Your task to perform on an android device: refresh tabs in the chrome app Image 0: 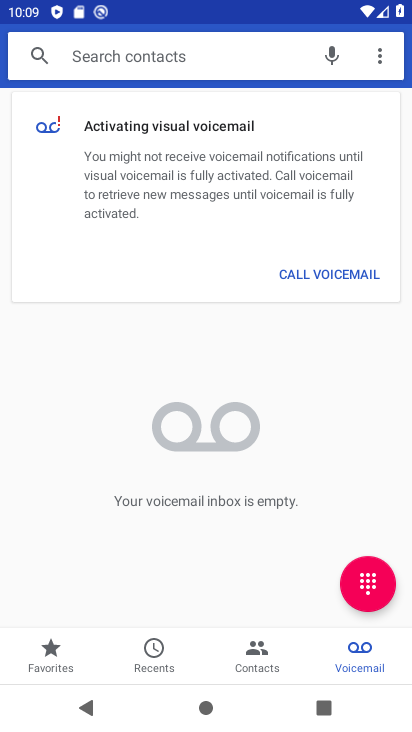
Step 0: press home button
Your task to perform on an android device: refresh tabs in the chrome app Image 1: 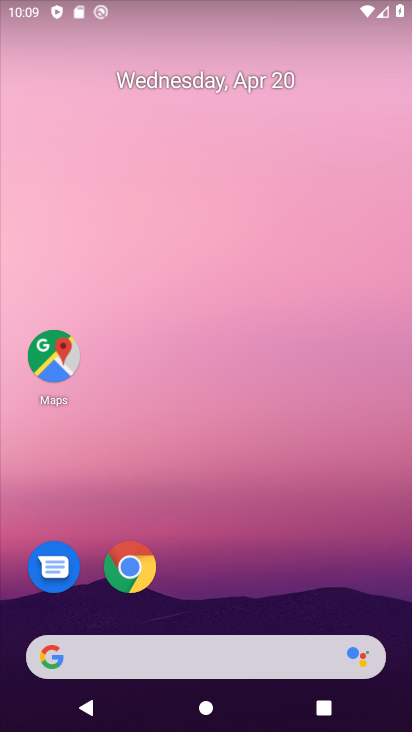
Step 1: click (130, 568)
Your task to perform on an android device: refresh tabs in the chrome app Image 2: 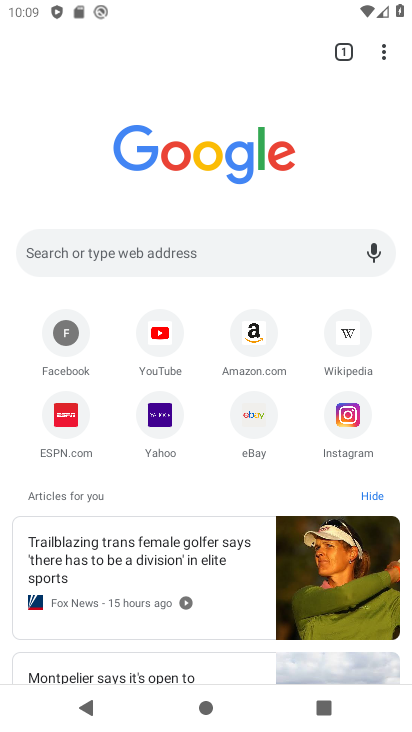
Step 2: click (387, 52)
Your task to perform on an android device: refresh tabs in the chrome app Image 3: 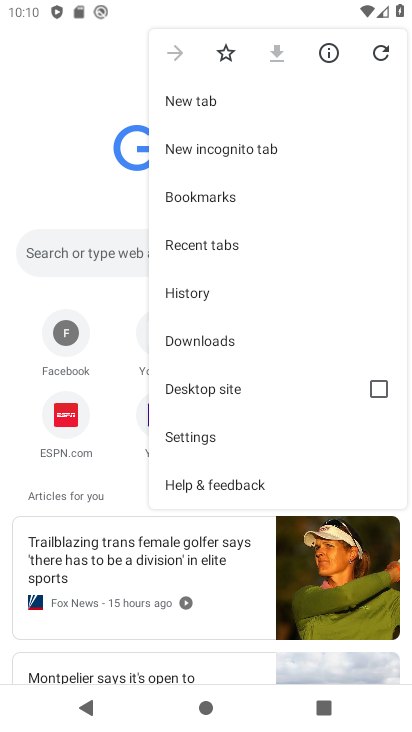
Step 3: click (380, 59)
Your task to perform on an android device: refresh tabs in the chrome app Image 4: 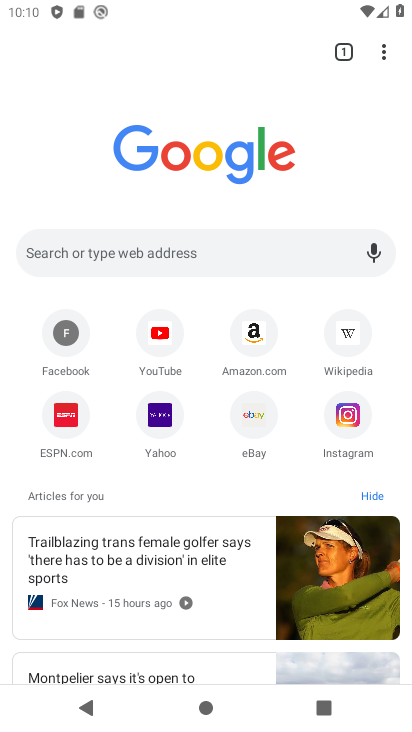
Step 4: task complete